Your task to perform on an android device: Clear all items from cart on bestbuy. Search for "razer huntsman" on bestbuy, select the first entry, and add it to the cart. Image 0: 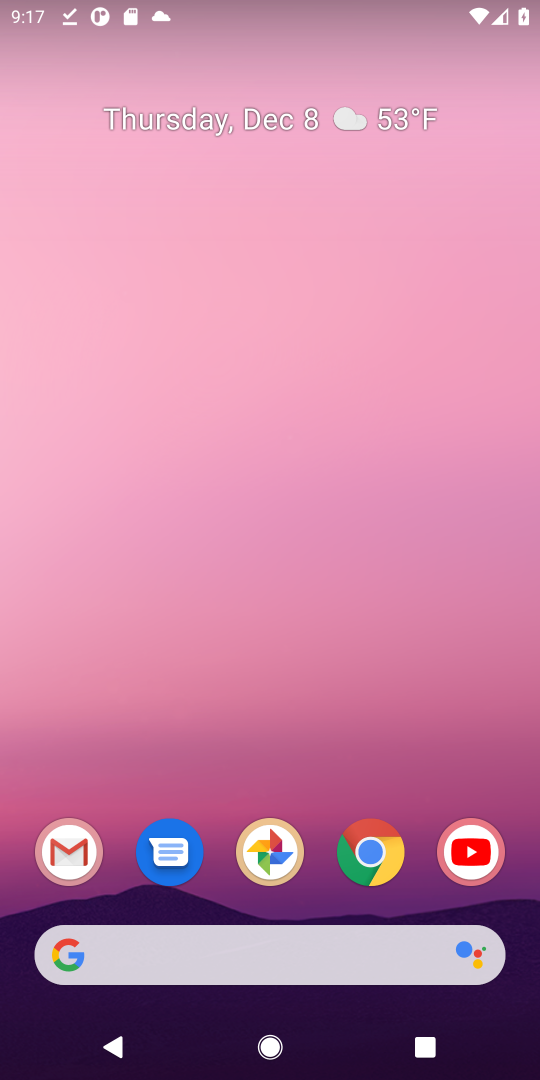
Step 0: click (324, 941)
Your task to perform on an android device: Clear all items from cart on bestbuy. Search for "razer huntsman" on bestbuy, select the first entry, and add it to the cart. Image 1: 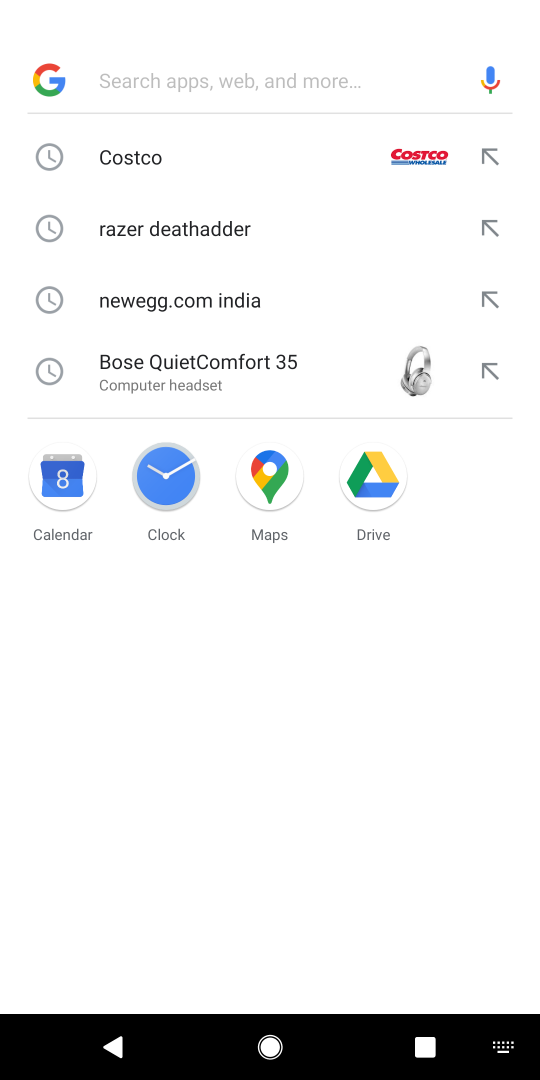
Step 1: type "bestbuy"
Your task to perform on an android device: Clear all items from cart on bestbuy. Search for "razer huntsman" on bestbuy, select the first entry, and add it to the cart. Image 2: 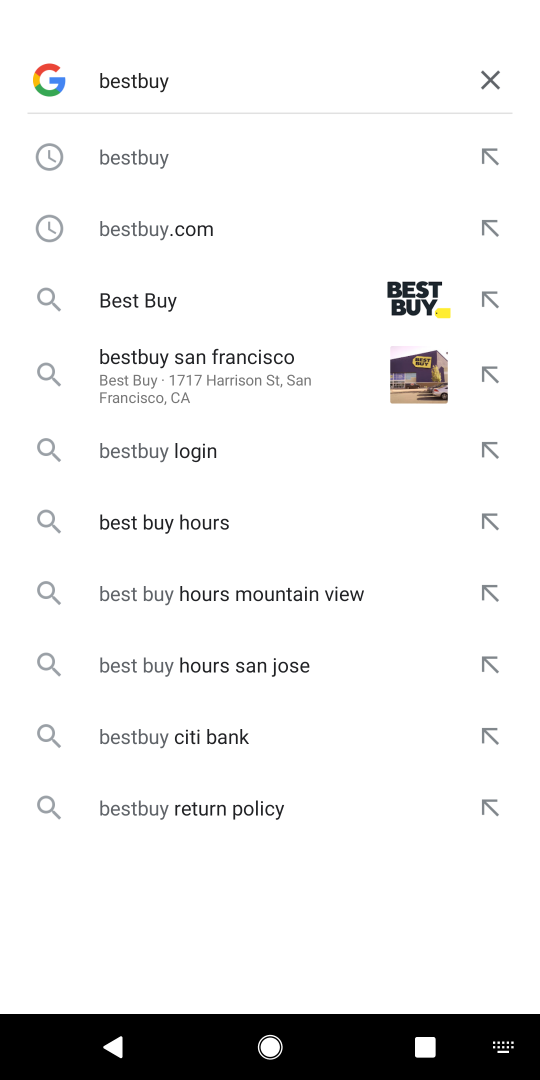
Step 2: click (298, 315)
Your task to perform on an android device: Clear all items from cart on bestbuy. Search for "razer huntsman" on bestbuy, select the first entry, and add it to the cart. Image 3: 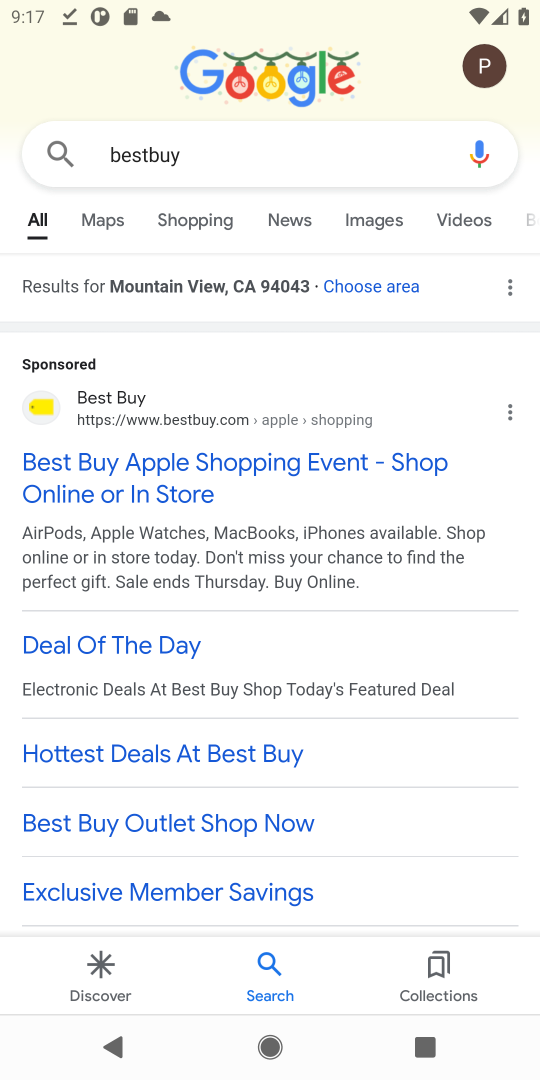
Step 3: click (187, 465)
Your task to perform on an android device: Clear all items from cart on bestbuy. Search for "razer huntsman" on bestbuy, select the first entry, and add it to the cart. Image 4: 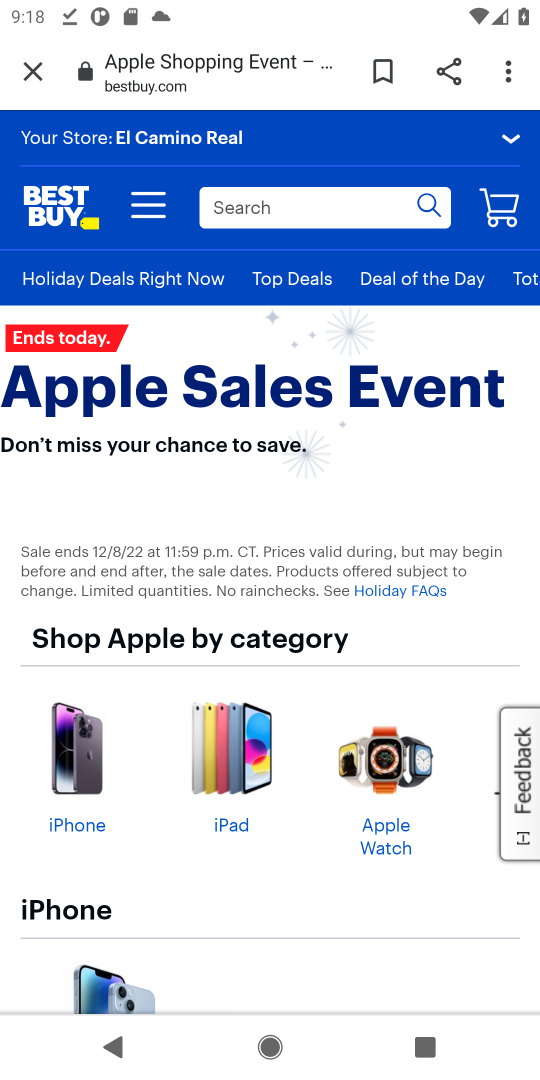
Step 4: click (266, 213)
Your task to perform on an android device: Clear all items from cart on bestbuy. Search for "razer huntsman" on bestbuy, select the first entry, and add it to the cart. Image 5: 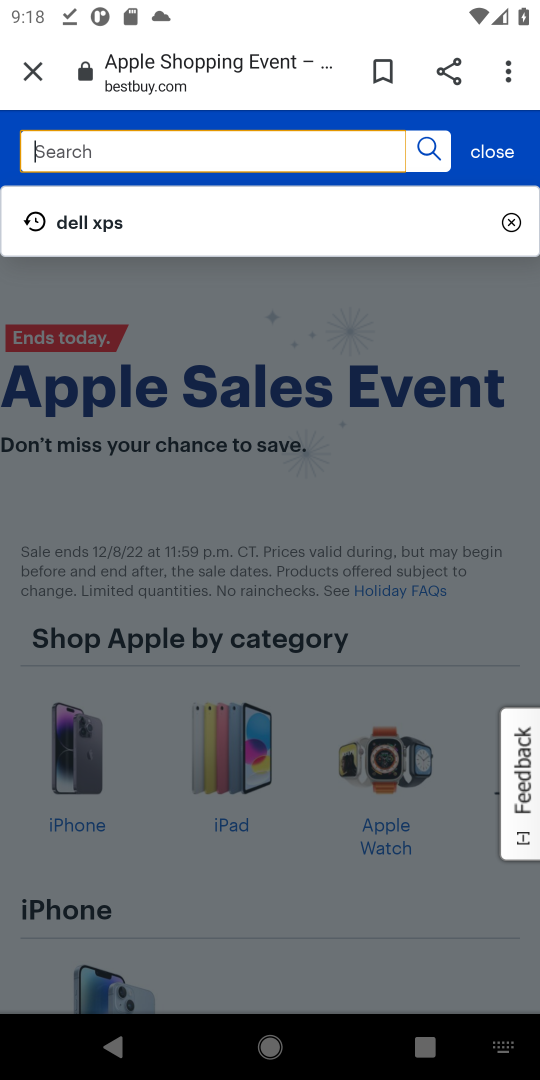
Step 5: type "razer huntsman"
Your task to perform on an android device: Clear all items from cart on bestbuy. Search for "razer huntsman" on bestbuy, select the first entry, and add it to the cart. Image 6: 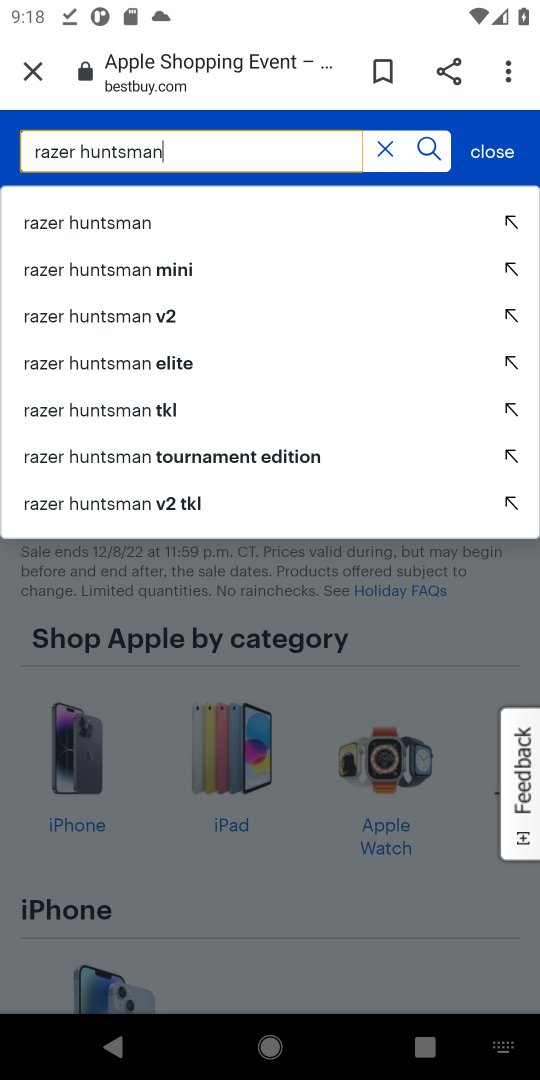
Step 6: click (106, 230)
Your task to perform on an android device: Clear all items from cart on bestbuy. Search for "razer huntsman" on bestbuy, select the first entry, and add it to the cart. Image 7: 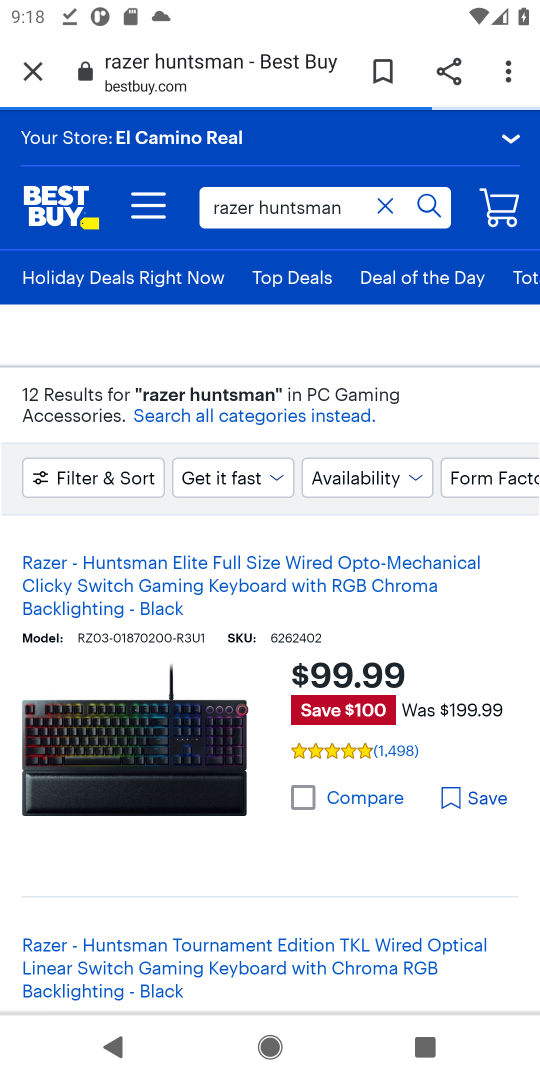
Step 7: click (158, 742)
Your task to perform on an android device: Clear all items from cart on bestbuy. Search for "razer huntsman" on bestbuy, select the first entry, and add it to the cart. Image 8: 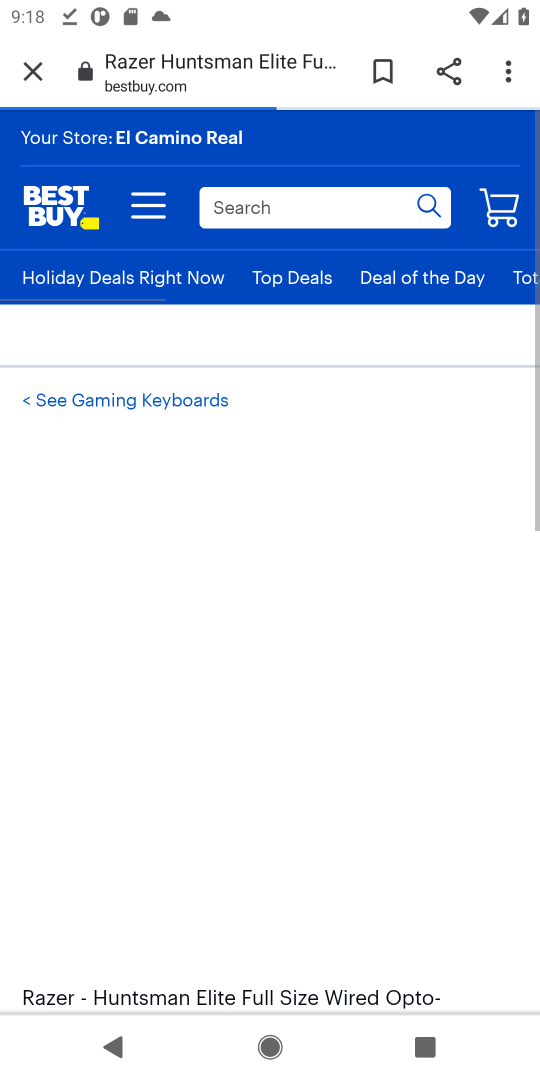
Step 8: click (367, 847)
Your task to perform on an android device: Clear all items from cart on bestbuy. Search for "razer huntsman" on bestbuy, select the first entry, and add it to the cart. Image 9: 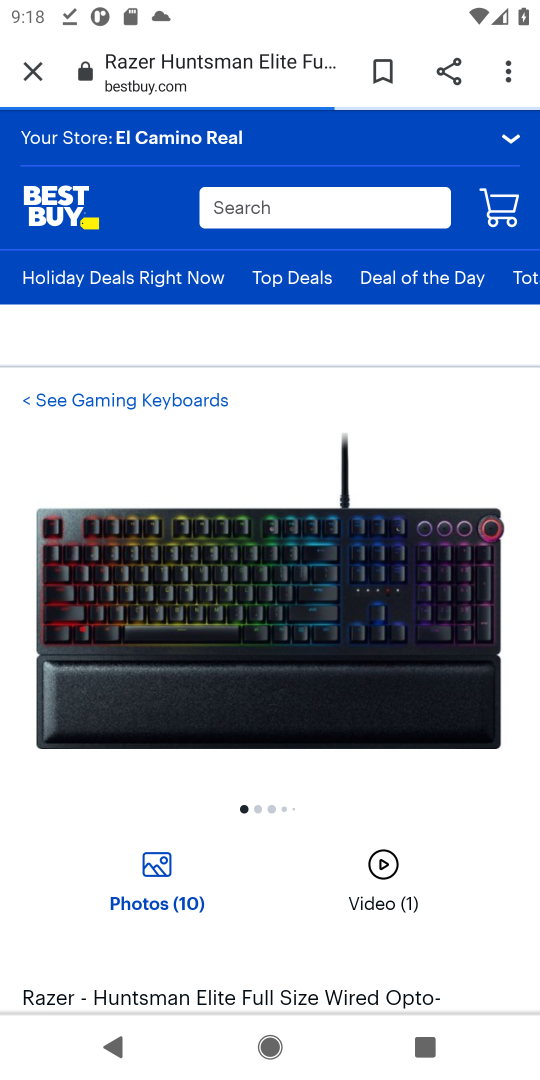
Step 9: task complete